Your task to perform on an android device: turn off javascript in the chrome app Image 0: 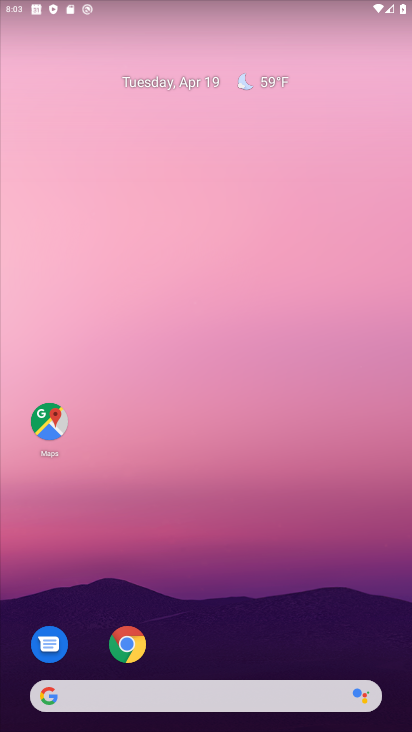
Step 0: click (129, 646)
Your task to perform on an android device: turn off javascript in the chrome app Image 1: 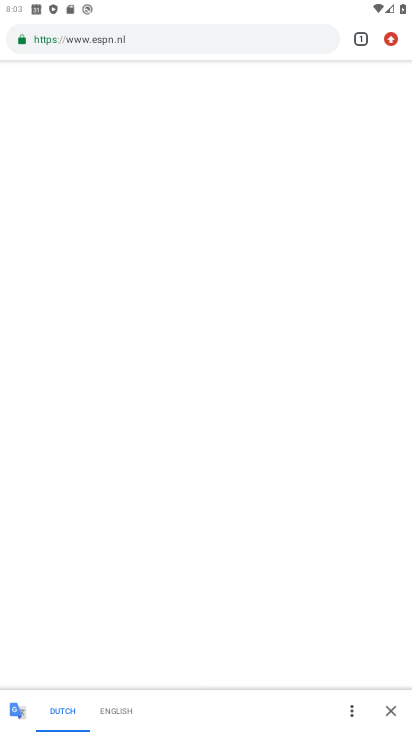
Step 1: click (390, 39)
Your task to perform on an android device: turn off javascript in the chrome app Image 2: 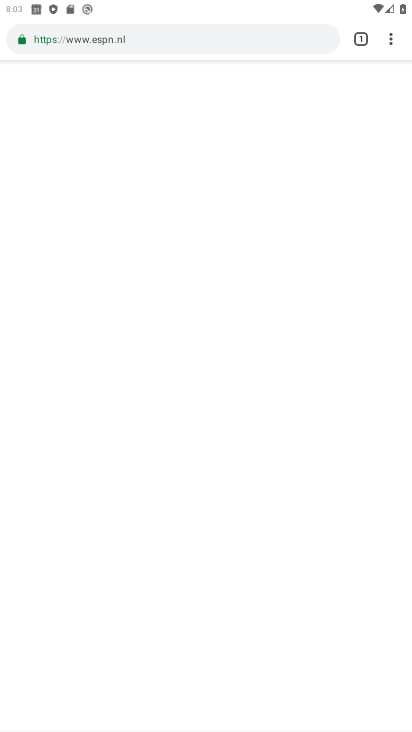
Step 2: drag from (392, 35) to (263, 511)
Your task to perform on an android device: turn off javascript in the chrome app Image 3: 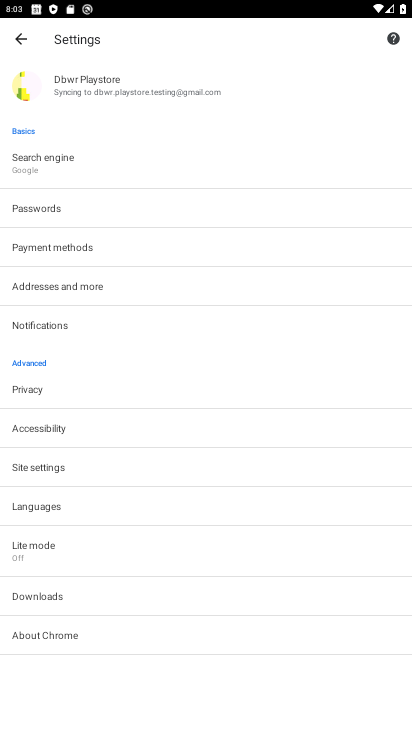
Step 3: click (57, 468)
Your task to perform on an android device: turn off javascript in the chrome app Image 4: 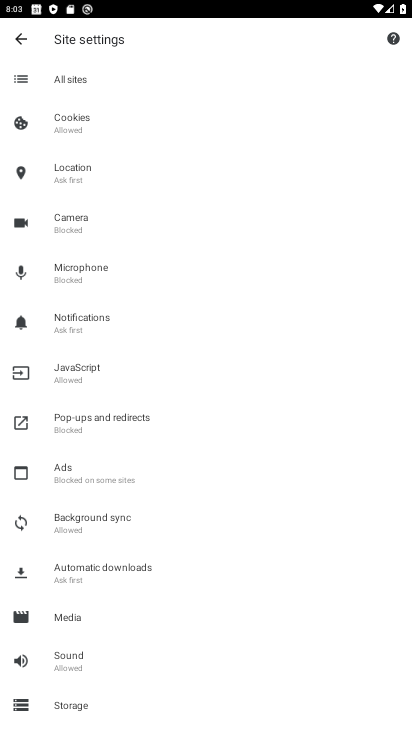
Step 4: click (102, 363)
Your task to perform on an android device: turn off javascript in the chrome app Image 5: 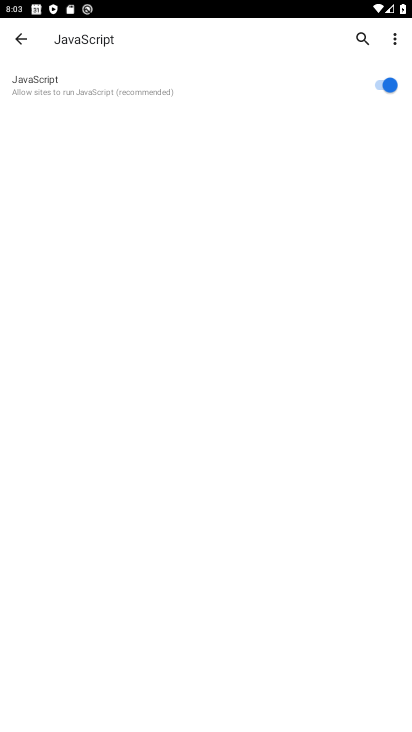
Step 5: click (393, 84)
Your task to perform on an android device: turn off javascript in the chrome app Image 6: 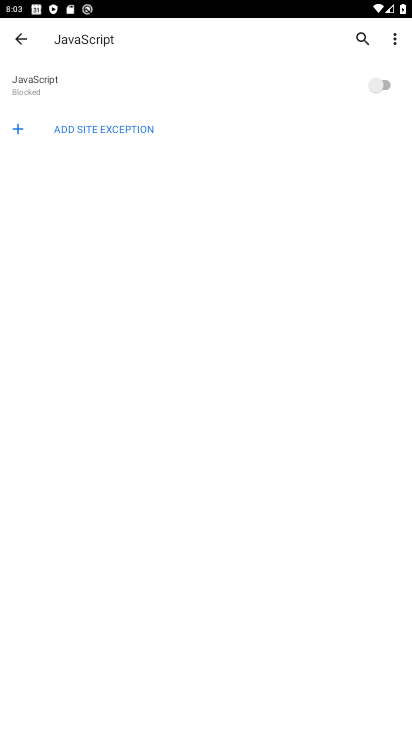
Step 6: task complete